Your task to perform on an android device: Go to display settings Image 0: 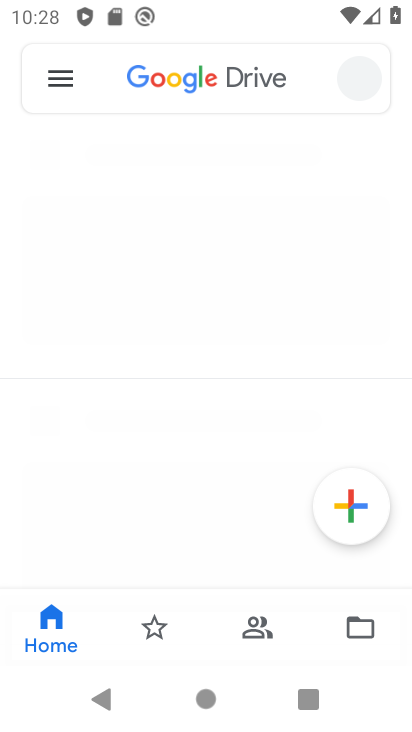
Step 0: click (263, 92)
Your task to perform on an android device: Go to display settings Image 1: 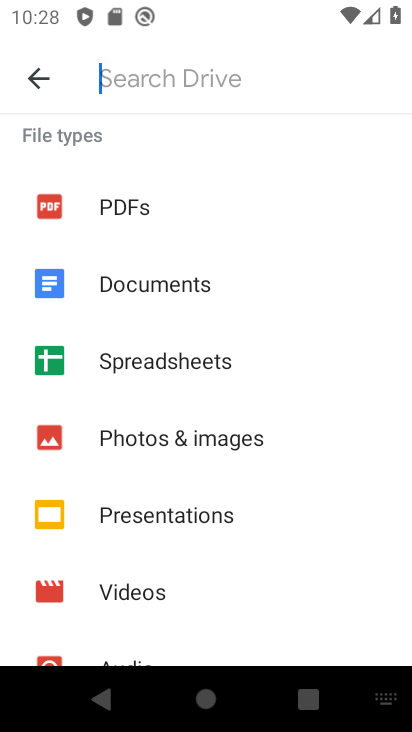
Step 1: press home button
Your task to perform on an android device: Go to display settings Image 2: 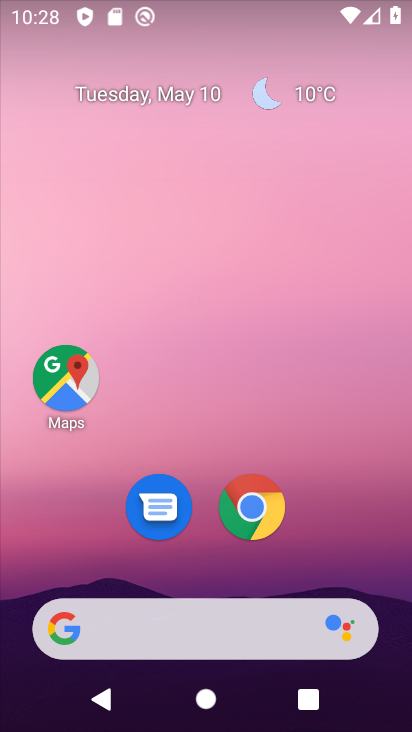
Step 2: drag from (177, 719) to (181, 106)
Your task to perform on an android device: Go to display settings Image 3: 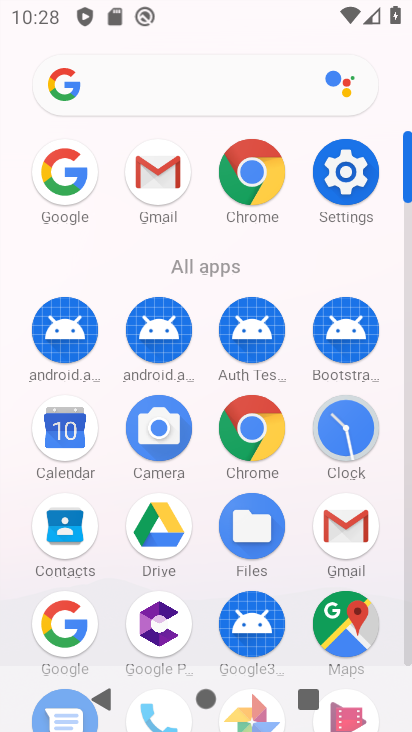
Step 3: click (349, 173)
Your task to perform on an android device: Go to display settings Image 4: 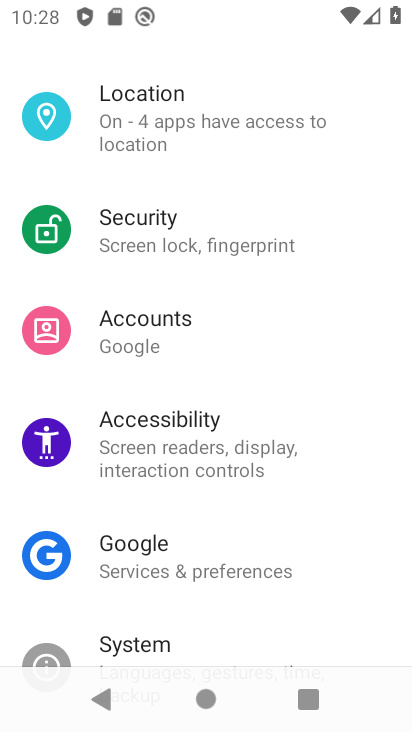
Step 4: drag from (212, 181) to (213, 570)
Your task to perform on an android device: Go to display settings Image 5: 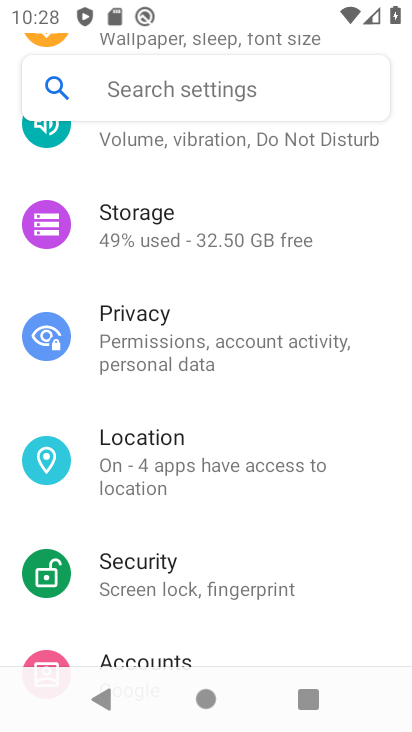
Step 5: drag from (245, 207) to (265, 524)
Your task to perform on an android device: Go to display settings Image 6: 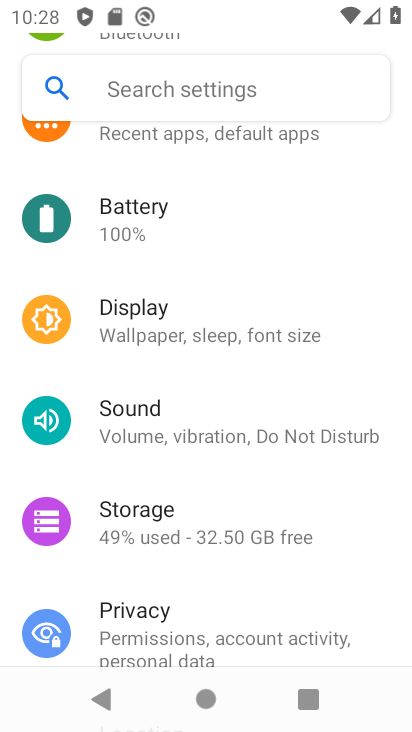
Step 6: click (135, 313)
Your task to perform on an android device: Go to display settings Image 7: 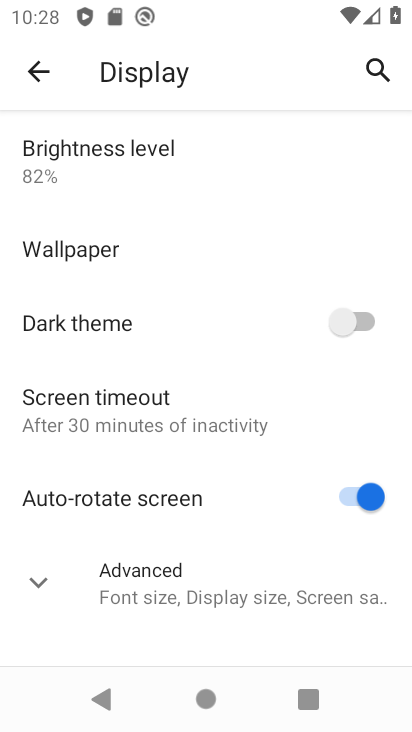
Step 7: task complete